Your task to perform on an android device: turn vacation reply on in the gmail app Image 0: 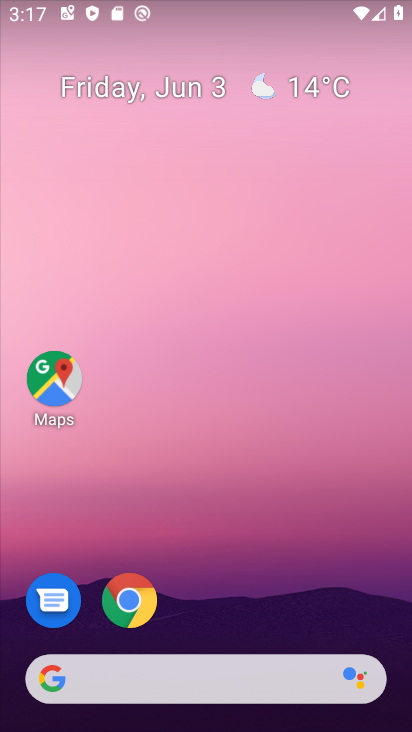
Step 0: drag from (300, 571) to (249, 196)
Your task to perform on an android device: turn vacation reply on in the gmail app Image 1: 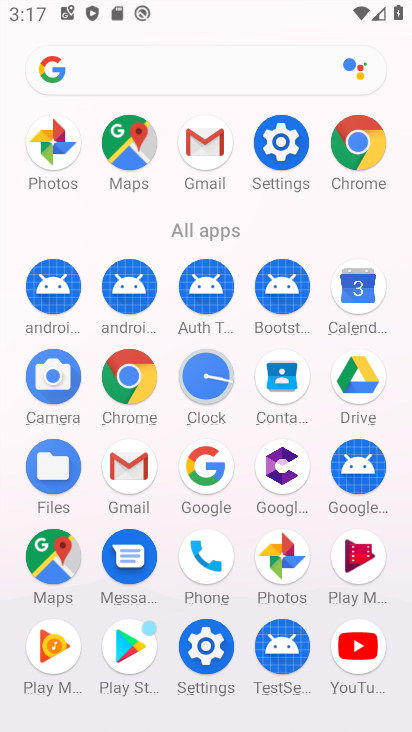
Step 1: click (202, 164)
Your task to perform on an android device: turn vacation reply on in the gmail app Image 2: 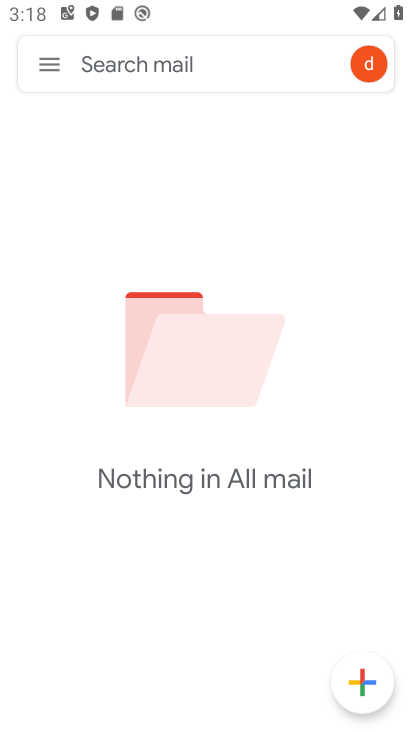
Step 2: click (53, 72)
Your task to perform on an android device: turn vacation reply on in the gmail app Image 3: 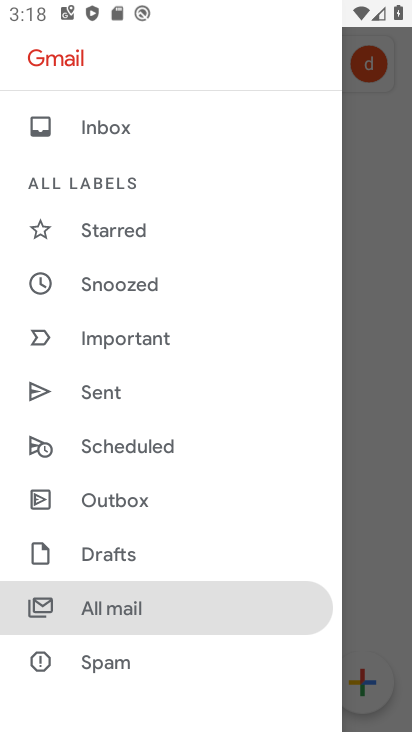
Step 3: drag from (227, 605) to (207, 396)
Your task to perform on an android device: turn vacation reply on in the gmail app Image 4: 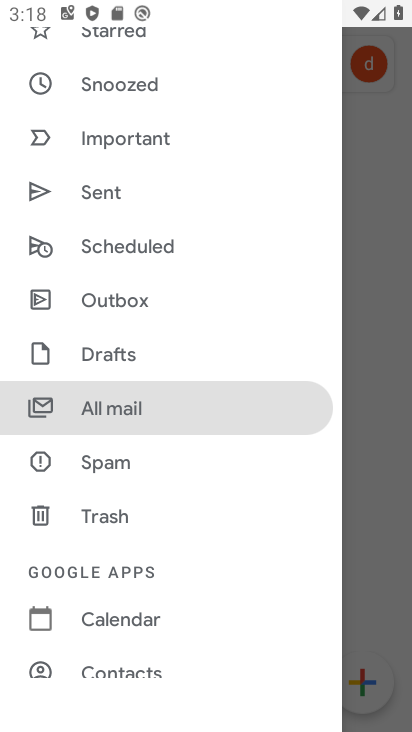
Step 4: drag from (179, 565) to (140, 332)
Your task to perform on an android device: turn vacation reply on in the gmail app Image 5: 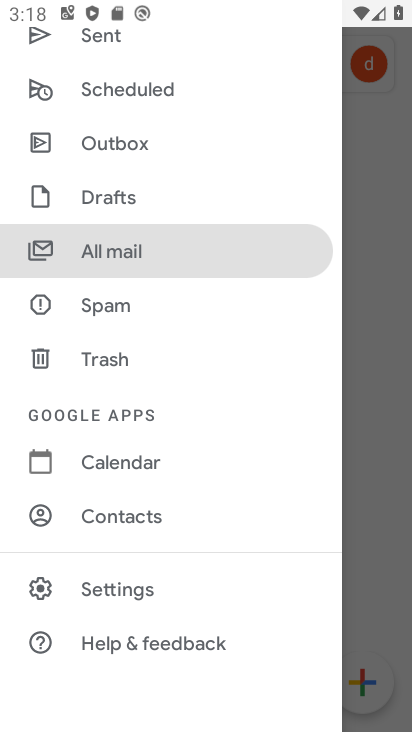
Step 5: click (128, 579)
Your task to perform on an android device: turn vacation reply on in the gmail app Image 6: 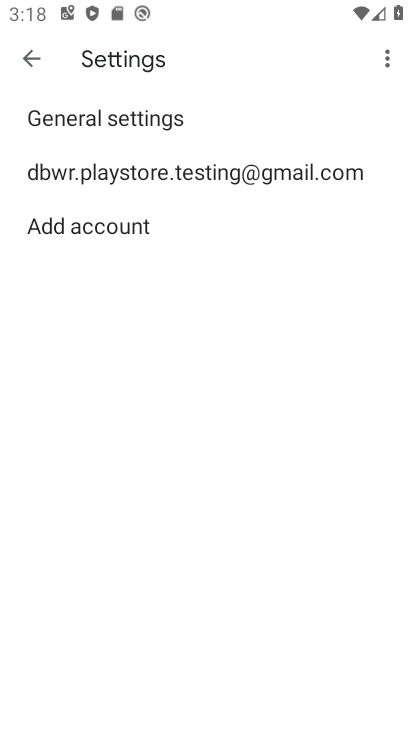
Step 6: click (120, 178)
Your task to perform on an android device: turn vacation reply on in the gmail app Image 7: 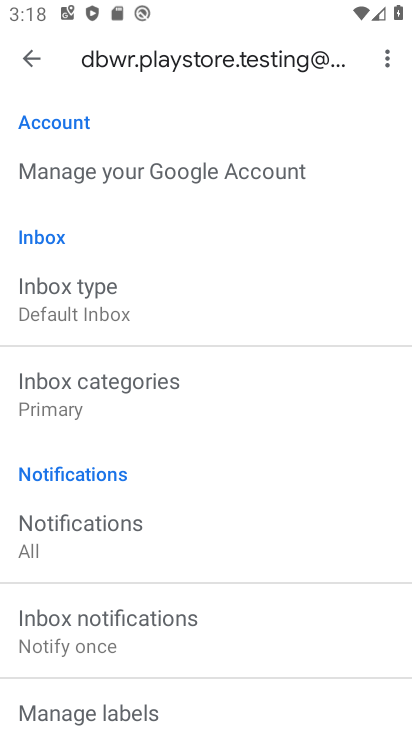
Step 7: task complete